Your task to perform on an android device: Go to Android settings Image 0: 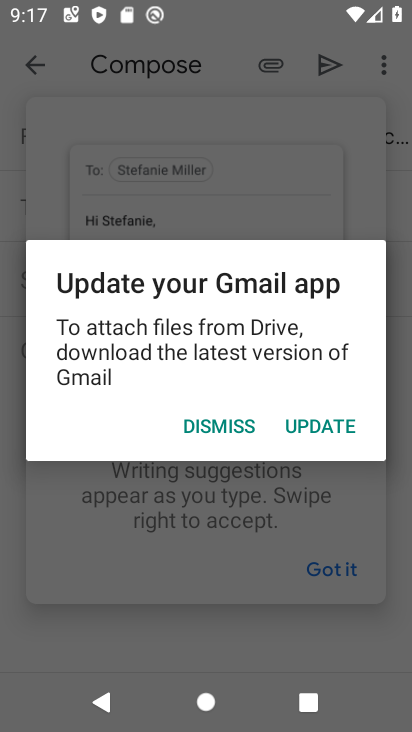
Step 0: press home button
Your task to perform on an android device: Go to Android settings Image 1: 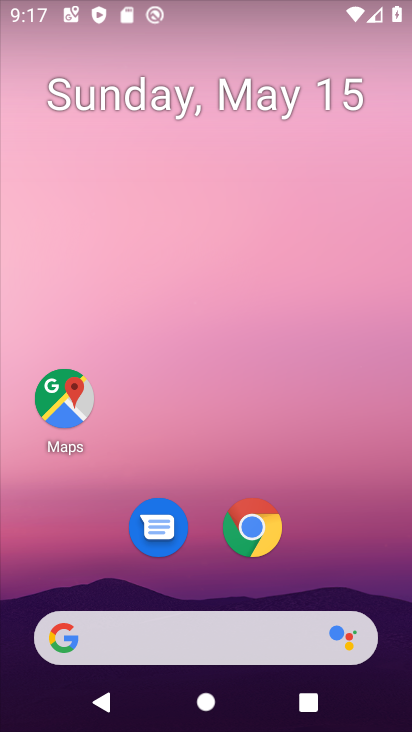
Step 1: drag from (340, 544) to (327, 69)
Your task to perform on an android device: Go to Android settings Image 2: 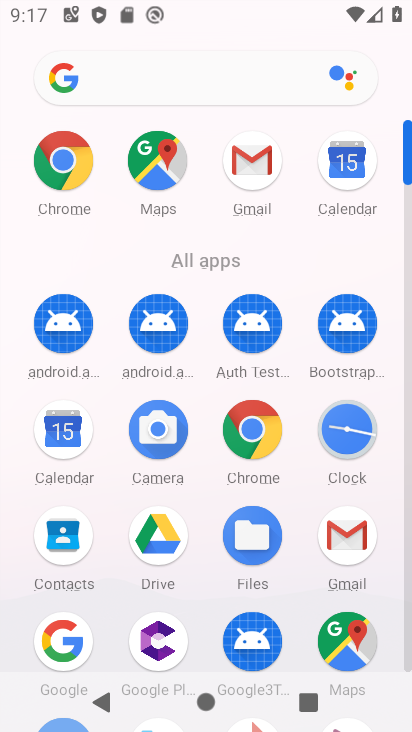
Step 2: click (404, 660)
Your task to perform on an android device: Go to Android settings Image 3: 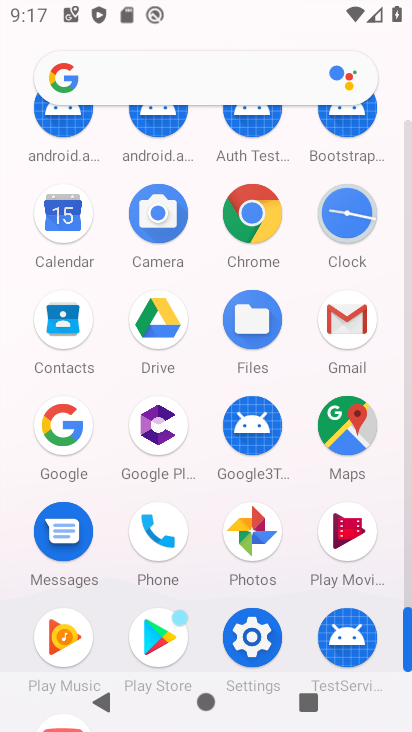
Step 3: click (241, 634)
Your task to perform on an android device: Go to Android settings Image 4: 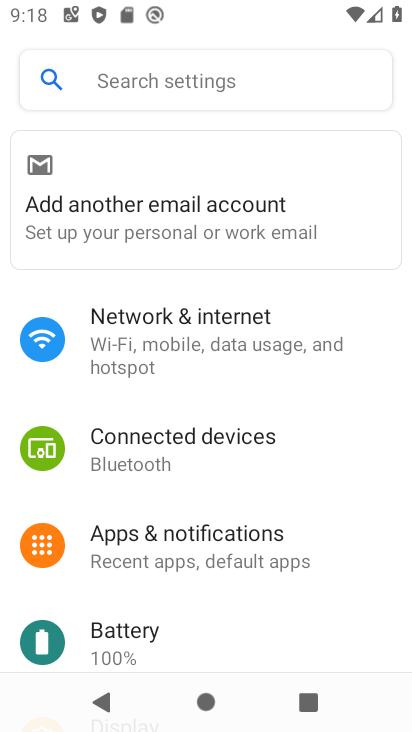
Step 4: task complete